Your task to perform on an android device: Open Yahoo.com Image 0: 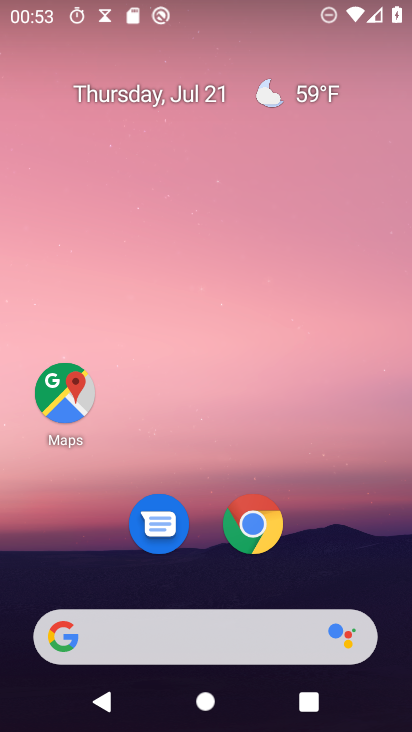
Step 0: press home button
Your task to perform on an android device: Open Yahoo.com Image 1: 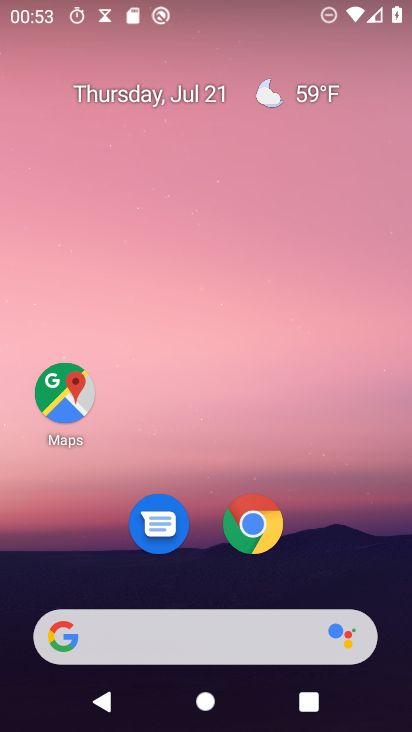
Step 1: click (262, 539)
Your task to perform on an android device: Open Yahoo.com Image 2: 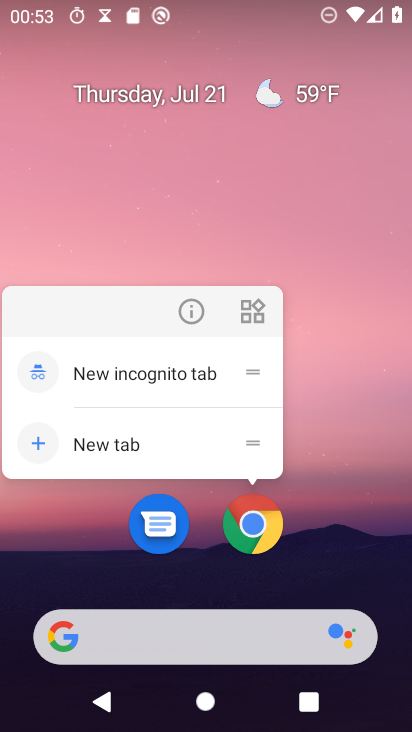
Step 2: click (244, 531)
Your task to perform on an android device: Open Yahoo.com Image 3: 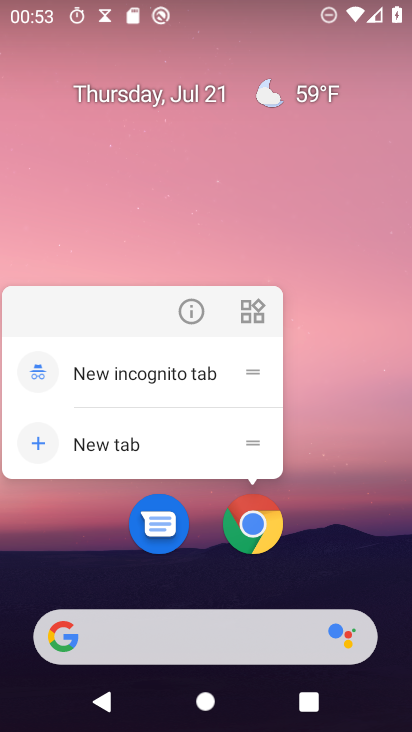
Step 3: click (261, 520)
Your task to perform on an android device: Open Yahoo.com Image 4: 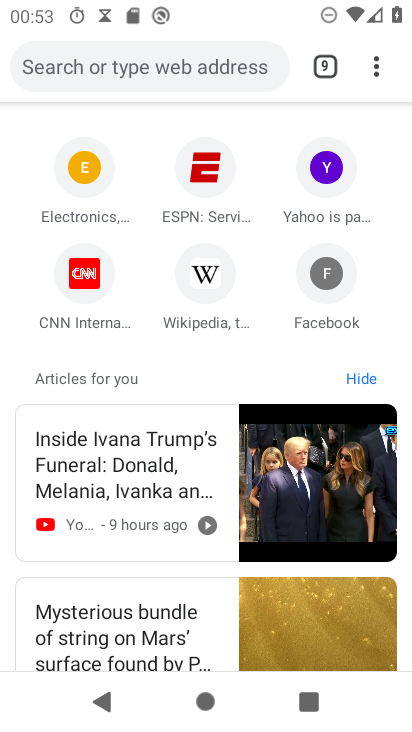
Step 4: click (321, 176)
Your task to perform on an android device: Open Yahoo.com Image 5: 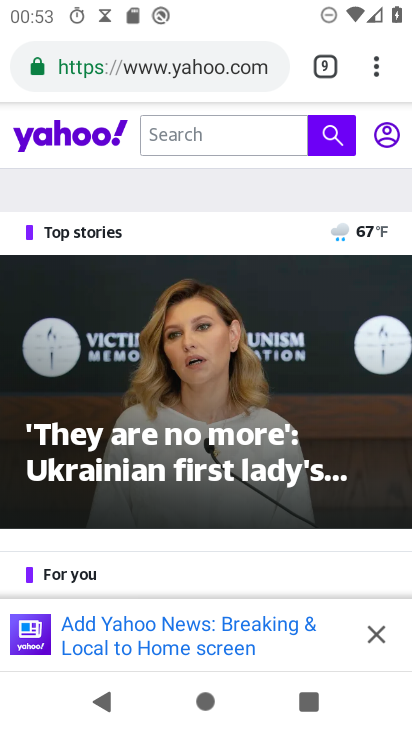
Step 5: task complete